Your task to perform on an android device: Open calendar and show me the first week of next month Image 0: 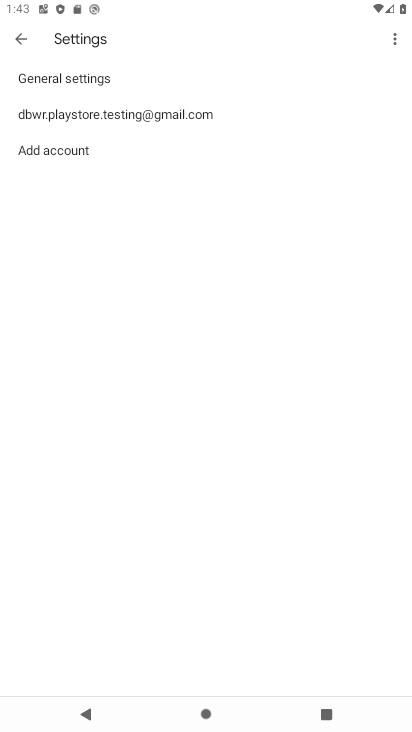
Step 0: press home button
Your task to perform on an android device: Open calendar and show me the first week of next month Image 1: 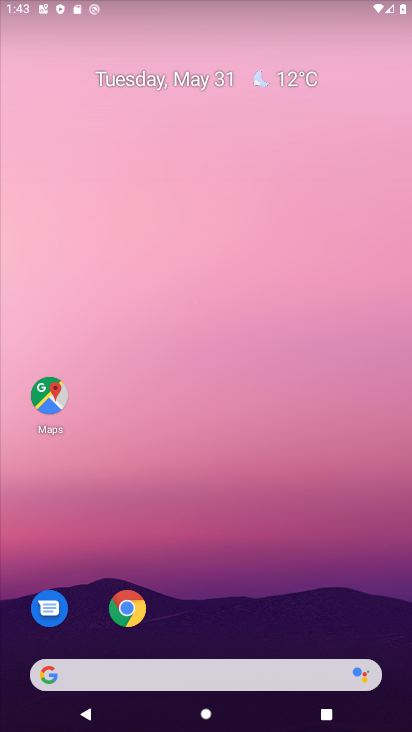
Step 1: drag from (320, 617) to (262, 191)
Your task to perform on an android device: Open calendar and show me the first week of next month Image 2: 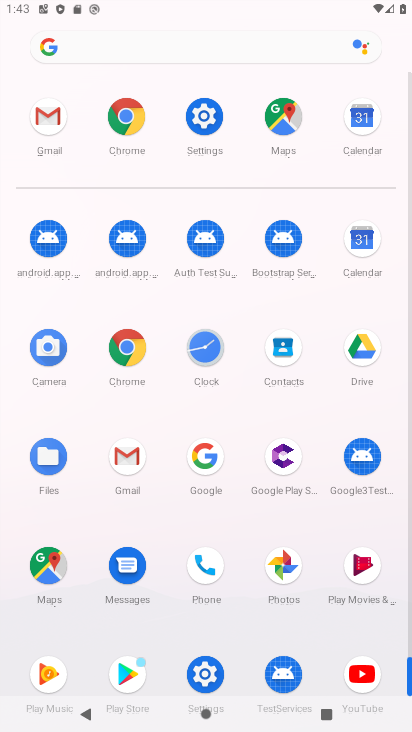
Step 2: click (360, 256)
Your task to perform on an android device: Open calendar and show me the first week of next month Image 3: 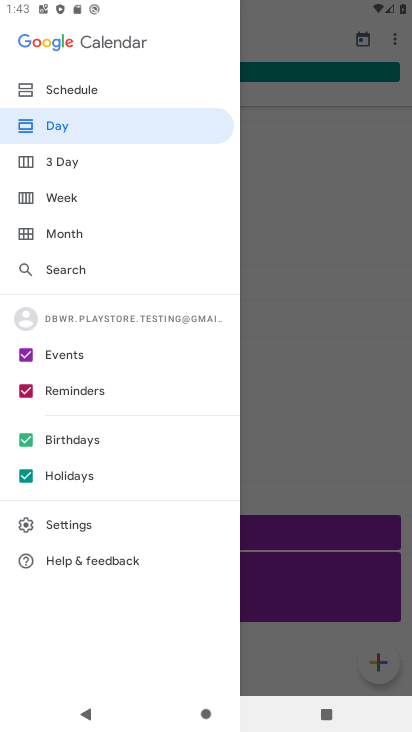
Step 3: click (323, 212)
Your task to perform on an android device: Open calendar and show me the first week of next month Image 4: 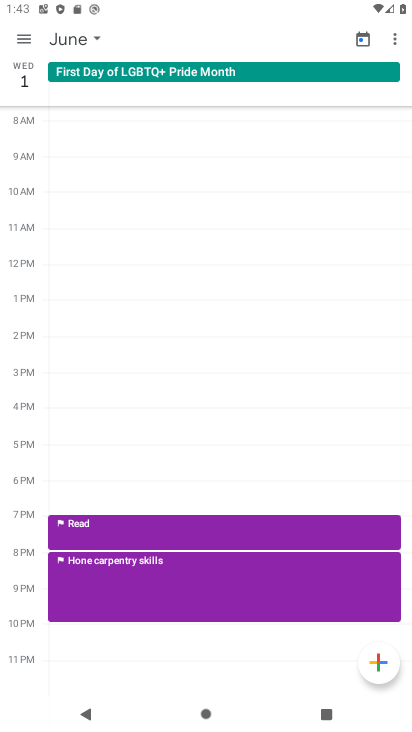
Step 4: click (30, 37)
Your task to perform on an android device: Open calendar and show me the first week of next month Image 5: 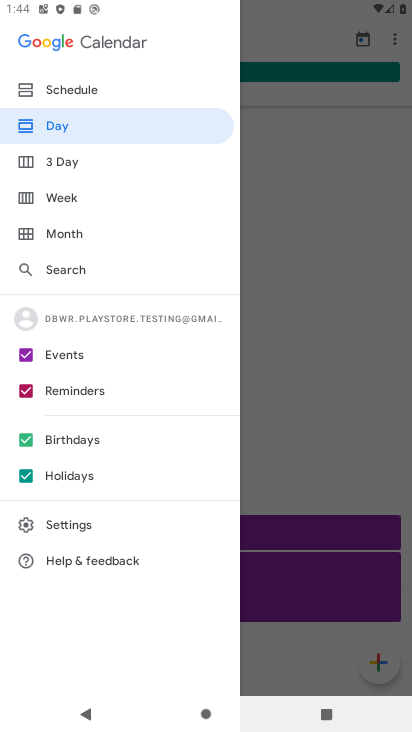
Step 5: click (326, 302)
Your task to perform on an android device: Open calendar and show me the first week of next month Image 6: 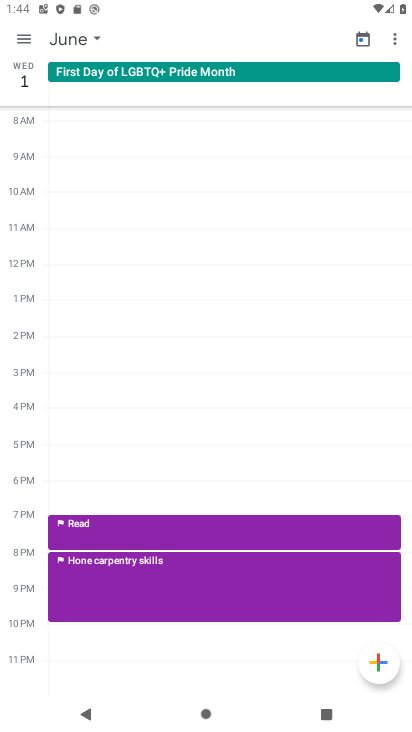
Step 6: click (80, 40)
Your task to perform on an android device: Open calendar and show me the first week of next month Image 7: 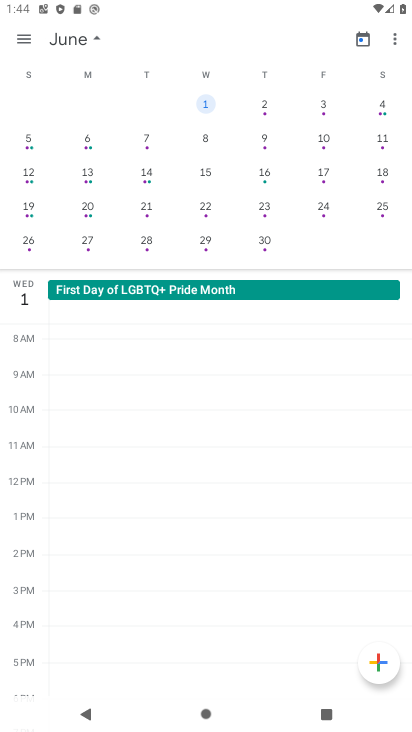
Step 7: task complete